Your task to perform on an android device: Open the web browser Image 0: 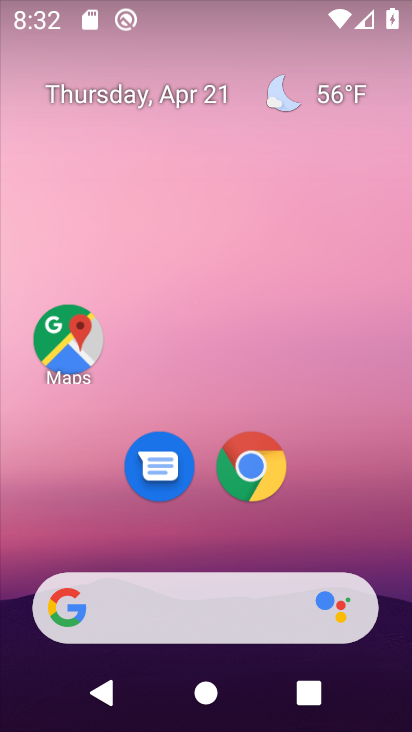
Step 0: click (259, 471)
Your task to perform on an android device: Open the web browser Image 1: 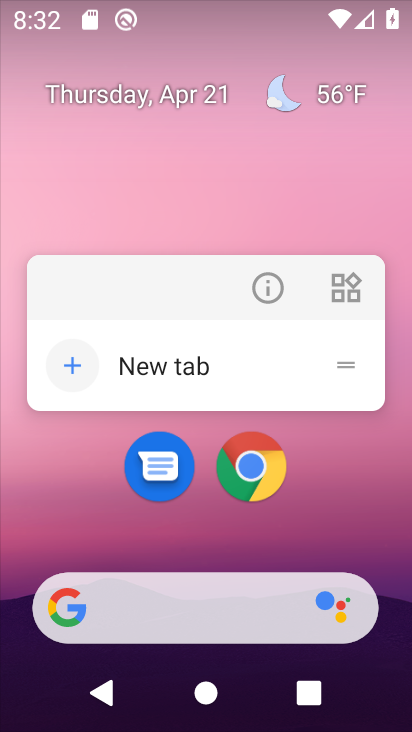
Step 1: click (256, 462)
Your task to perform on an android device: Open the web browser Image 2: 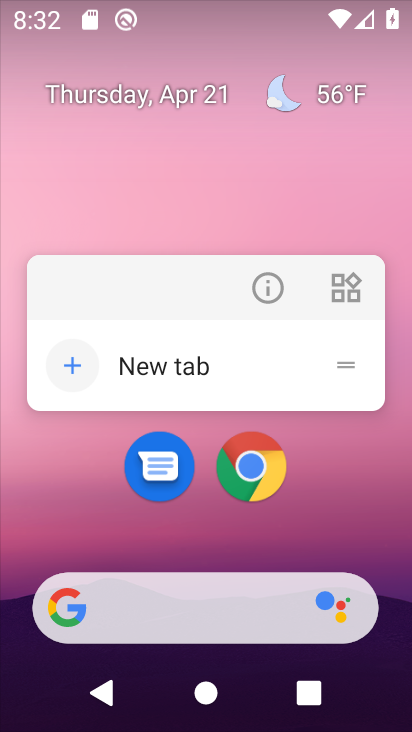
Step 2: click (255, 476)
Your task to perform on an android device: Open the web browser Image 3: 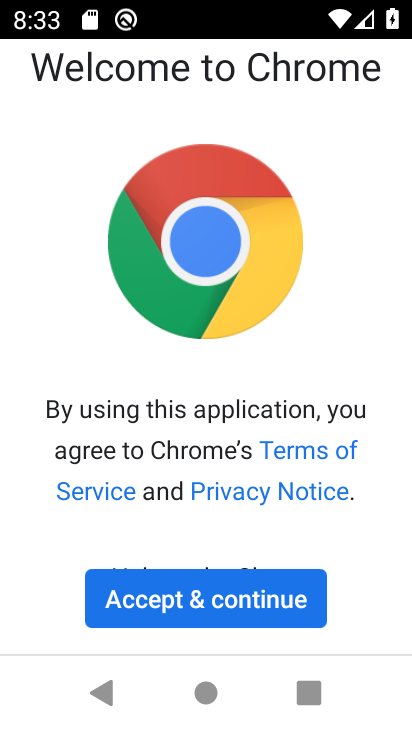
Step 3: click (228, 601)
Your task to perform on an android device: Open the web browser Image 4: 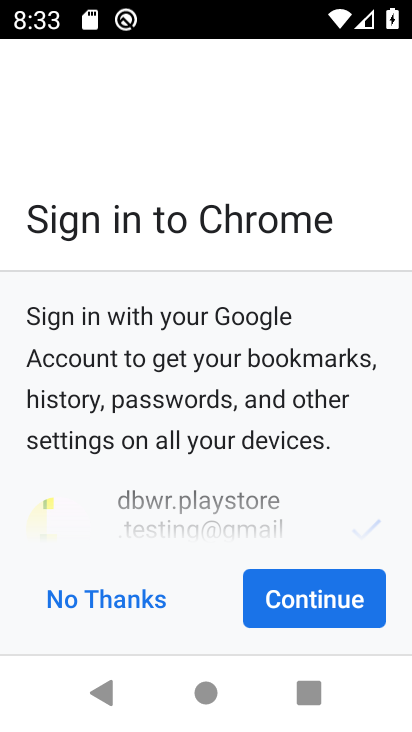
Step 4: click (320, 608)
Your task to perform on an android device: Open the web browser Image 5: 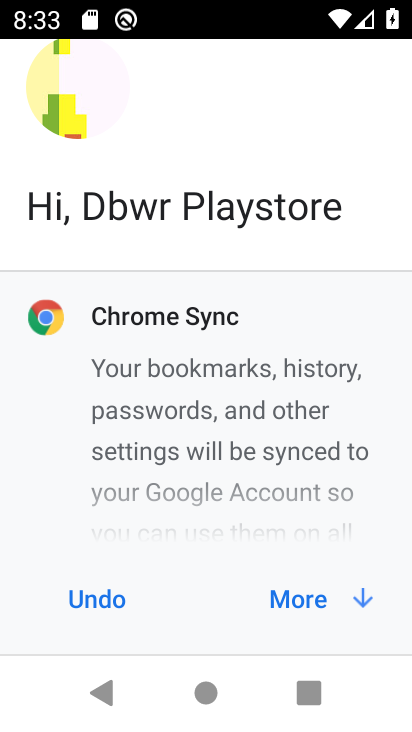
Step 5: click (320, 606)
Your task to perform on an android device: Open the web browser Image 6: 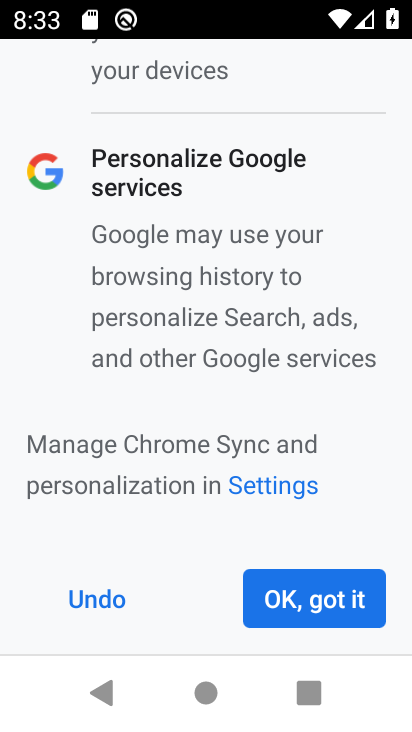
Step 6: click (320, 606)
Your task to perform on an android device: Open the web browser Image 7: 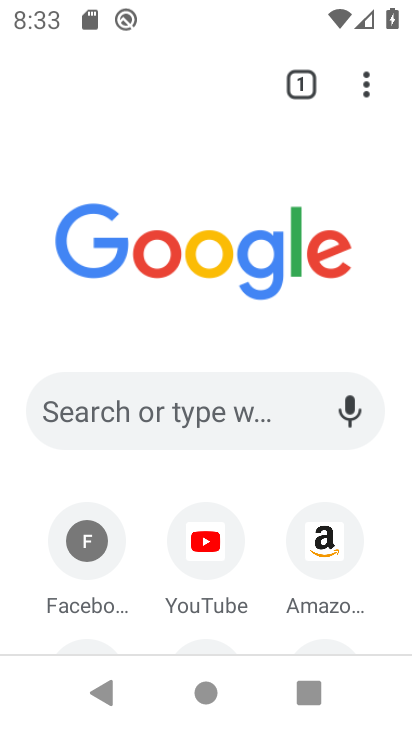
Step 7: task complete